Your task to perform on an android device: Go to Wikipedia Image 0: 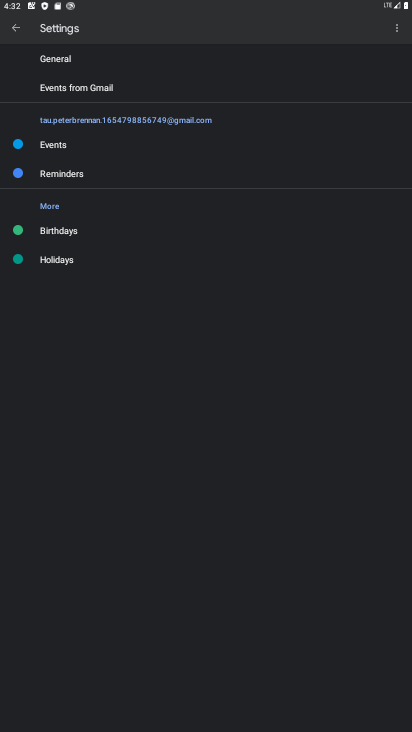
Step 0: press home button
Your task to perform on an android device: Go to Wikipedia Image 1: 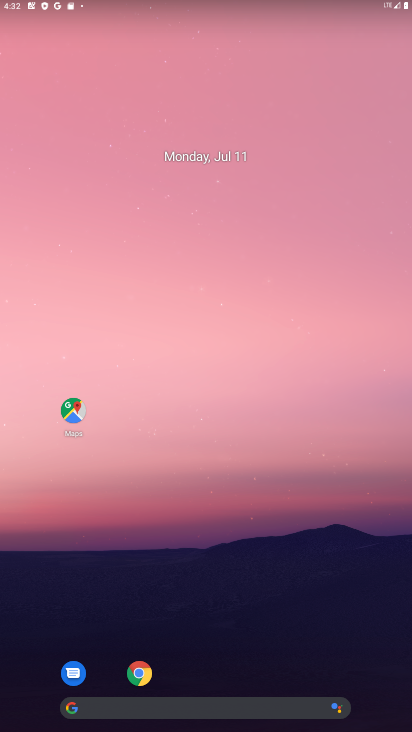
Step 1: click (138, 674)
Your task to perform on an android device: Go to Wikipedia Image 2: 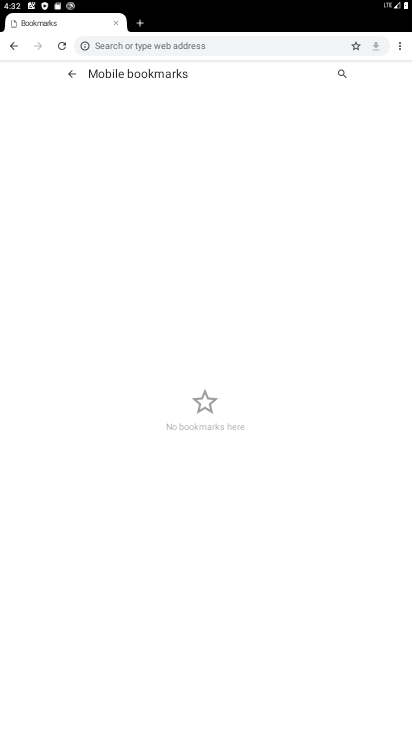
Step 2: click (277, 48)
Your task to perform on an android device: Go to Wikipedia Image 3: 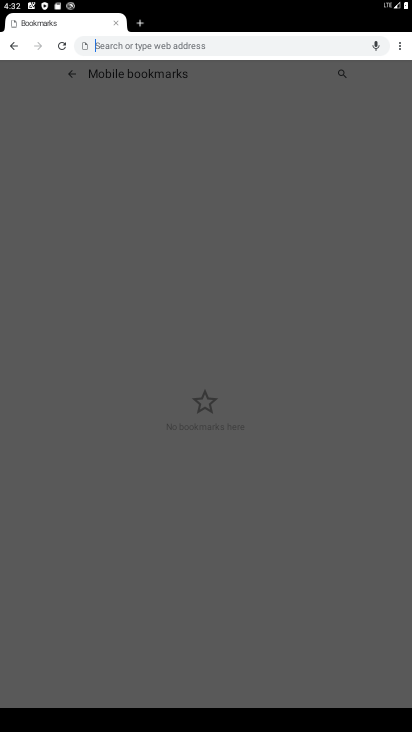
Step 3: type "Wikipedia"
Your task to perform on an android device: Go to Wikipedia Image 4: 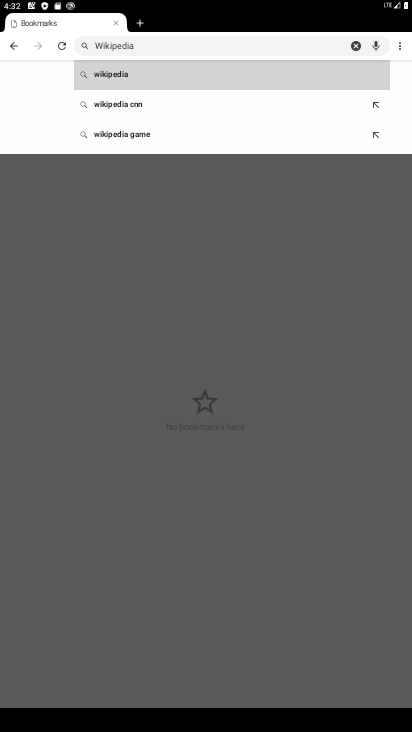
Step 4: click (154, 77)
Your task to perform on an android device: Go to Wikipedia Image 5: 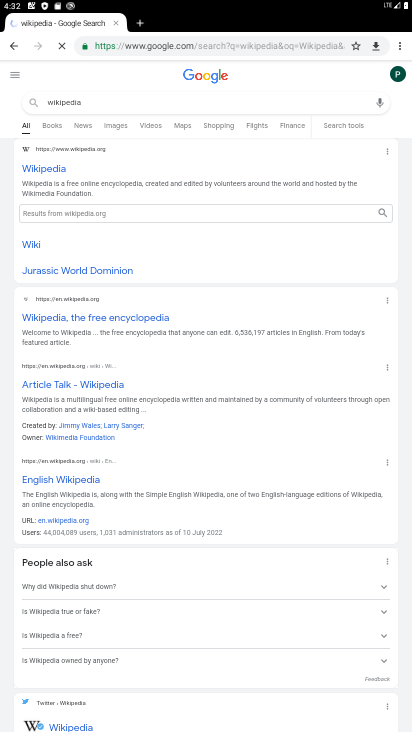
Step 5: click (52, 171)
Your task to perform on an android device: Go to Wikipedia Image 6: 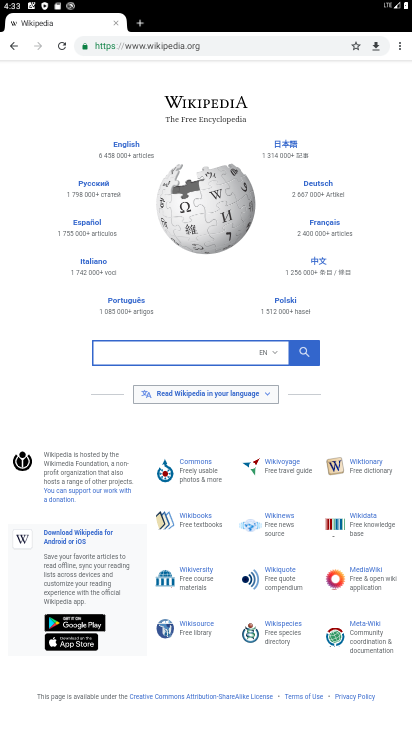
Step 6: task complete